Your task to perform on an android device: Open Google Maps and go to "Timeline" Image 0: 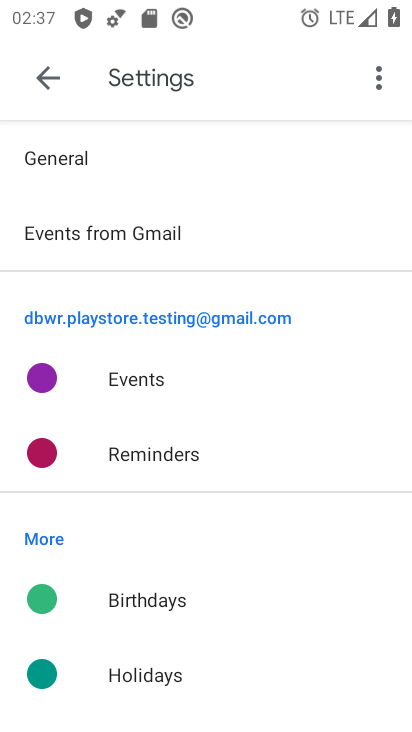
Step 0: press home button
Your task to perform on an android device: Open Google Maps and go to "Timeline" Image 1: 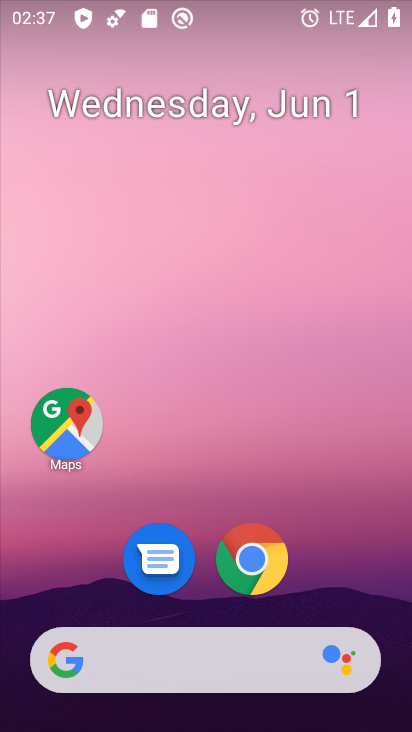
Step 1: click (72, 423)
Your task to perform on an android device: Open Google Maps and go to "Timeline" Image 2: 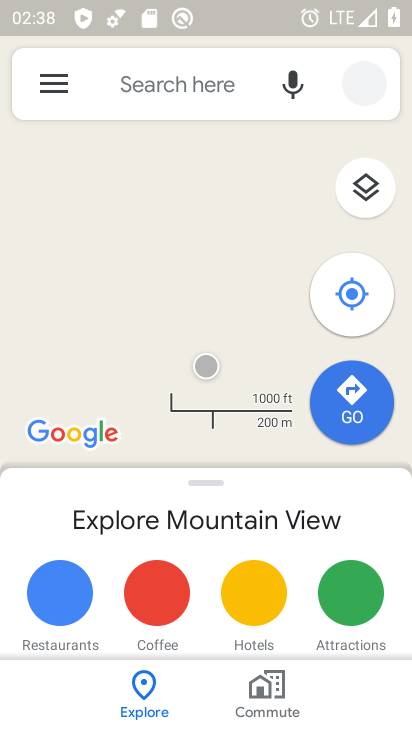
Step 2: click (50, 74)
Your task to perform on an android device: Open Google Maps and go to "Timeline" Image 3: 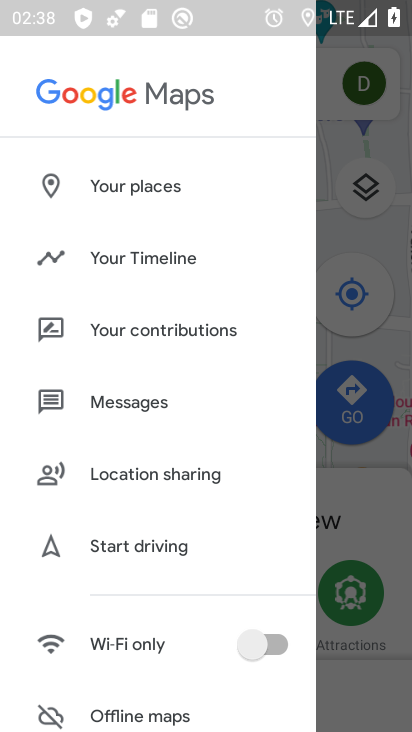
Step 3: click (163, 259)
Your task to perform on an android device: Open Google Maps and go to "Timeline" Image 4: 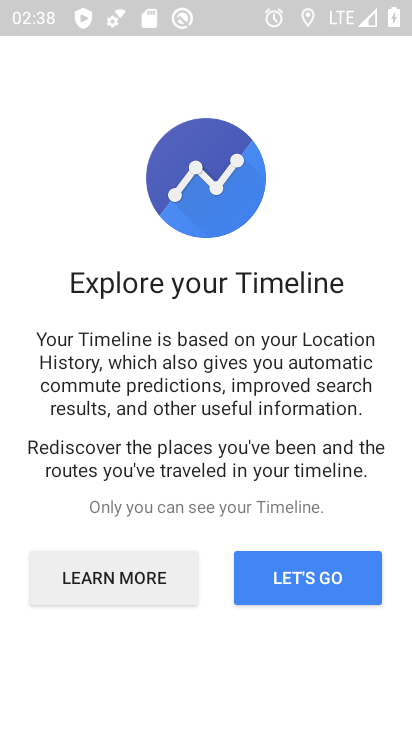
Step 4: click (306, 600)
Your task to perform on an android device: Open Google Maps and go to "Timeline" Image 5: 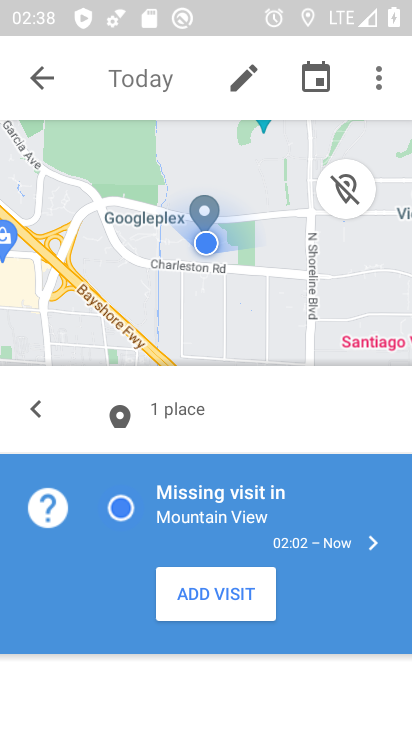
Step 5: task complete